Your task to perform on an android device: open app "LinkedIn" (install if not already installed), go to login, and select forgot password Image 0: 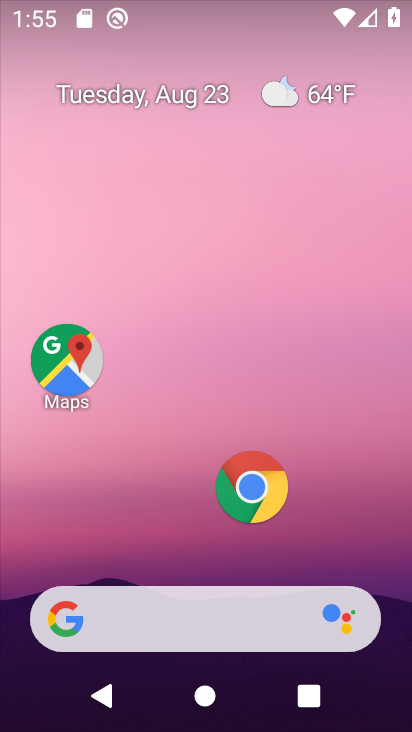
Step 0: drag from (191, 535) to (179, 225)
Your task to perform on an android device: open app "LinkedIn" (install if not already installed), go to login, and select forgot password Image 1: 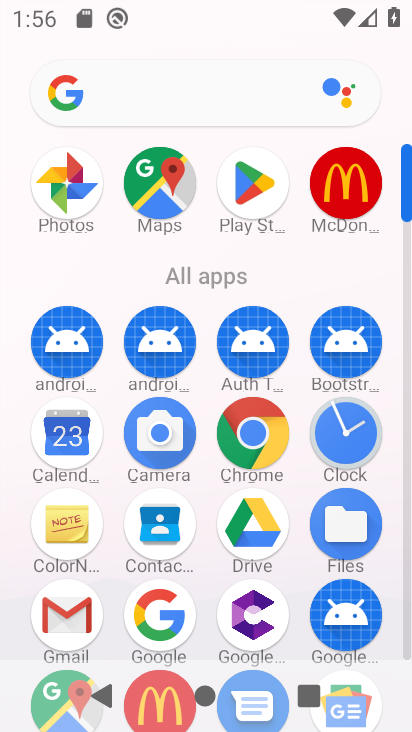
Step 1: click (230, 184)
Your task to perform on an android device: open app "LinkedIn" (install if not already installed), go to login, and select forgot password Image 2: 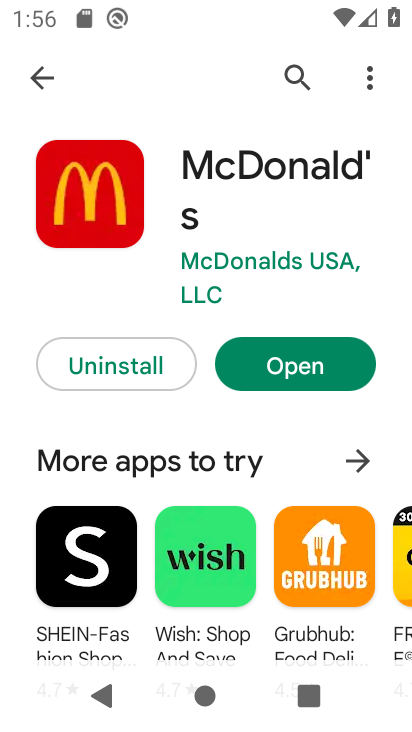
Step 2: click (32, 63)
Your task to perform on an android device: open app "LinkedIn" (install if not already installed), go to login, and select forgot password Image 3: 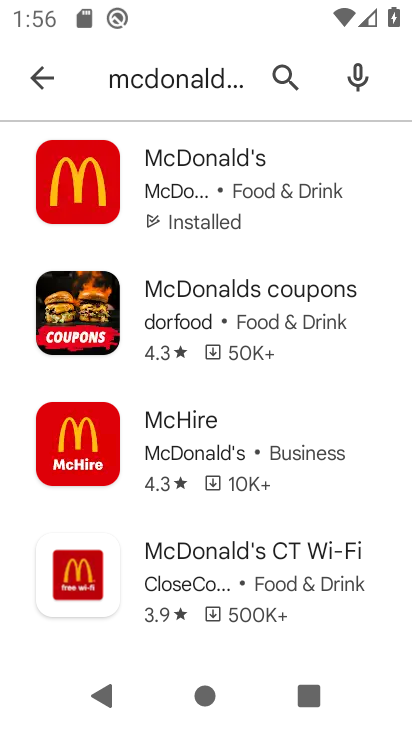
Step 3: click (57, 85)
Your task to perform on an android device: open app "LinkedIn" (install if not already installed), go to login, and select forgot password Image 4: 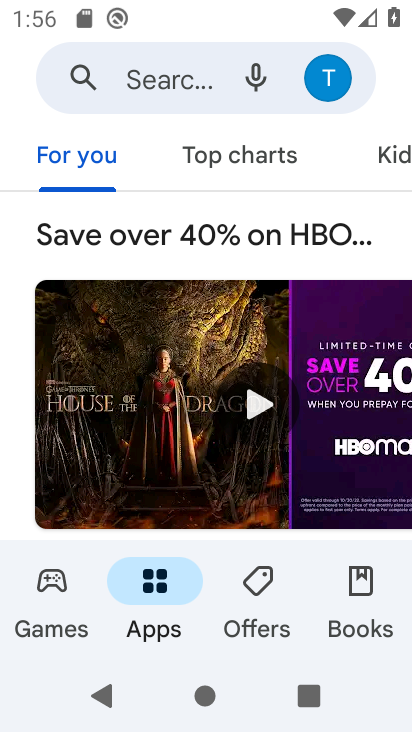
Step 4: click (179, 70)
Your task to perform on an android device: open app "LinkedIn" (install if not already installed), go to login, and select forgot password Image 5: 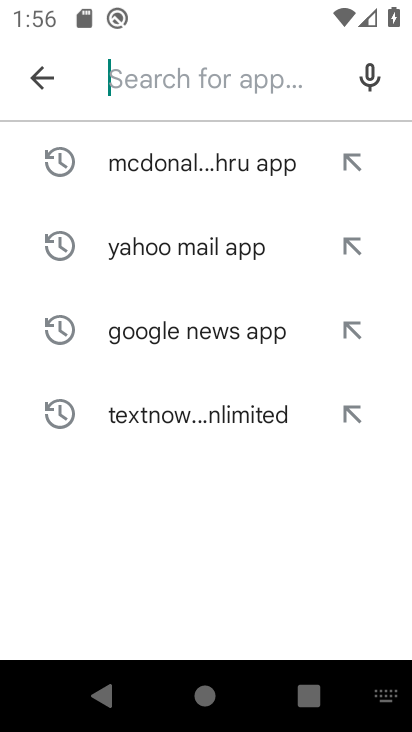
Step 5: click (193, 72)
Your task to perform on an android device: open app "LinkedIn" (install if not already installed), go to login, and select forgot password Image 6: 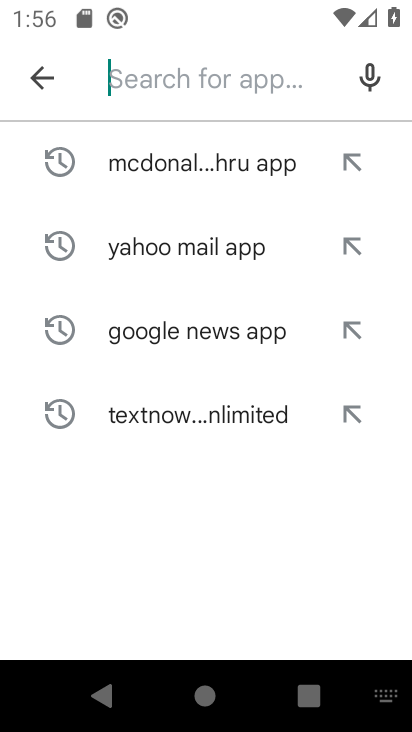
Step 6: type " LinkedIn"
Your task to perform on an android device: open app "LinkedIn" (install if not already installed), go to login, and select forgot password Image 7: 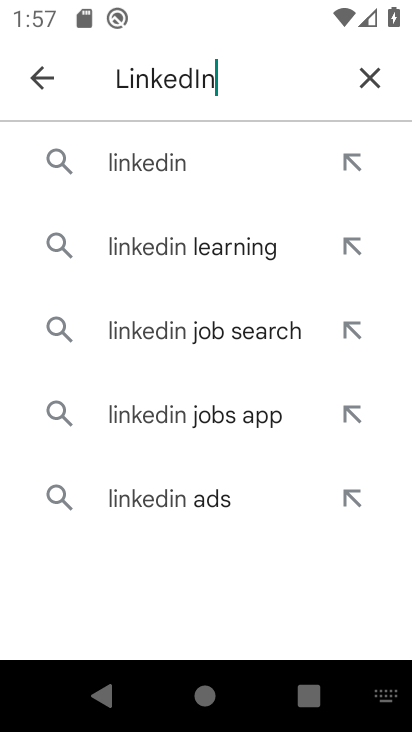
Step 7: click (128, 163)
Your task to perform on an android device: open app "LinkedIn" (install if not already installed), go to login, and select forgot password Image 8: 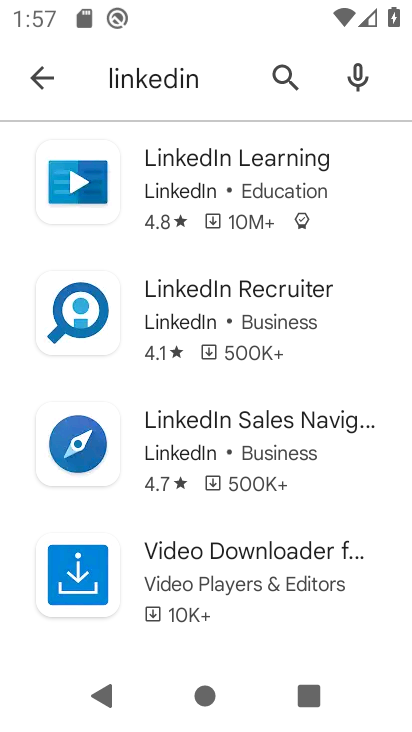
Step 8: click (166, 159)
Your task to perform on an android device: open app "LinkedIn" (install if not already installed), go to login, and select forgot password Image 9: 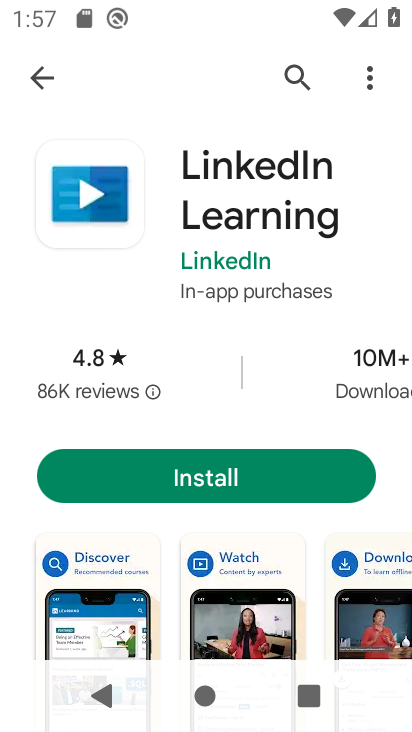
Step 9: click (192, 474)
Your task to perform on an android device: open app "LinkedIn" (install if not already installed), go to login, and select forgot password Image 10: 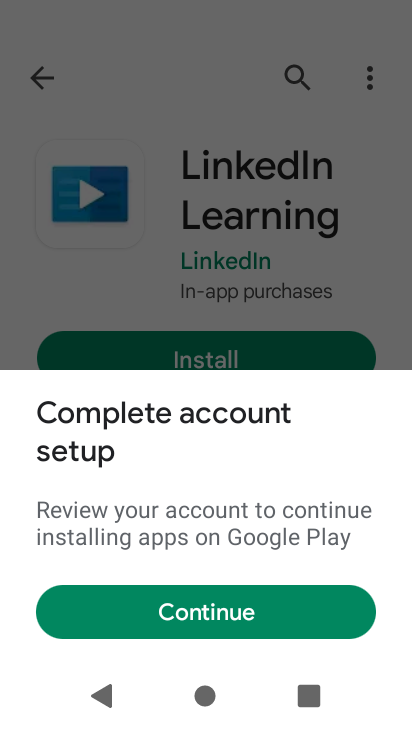
Step 10: task complete